Your task to perform on an android device: Open the map Image 0: 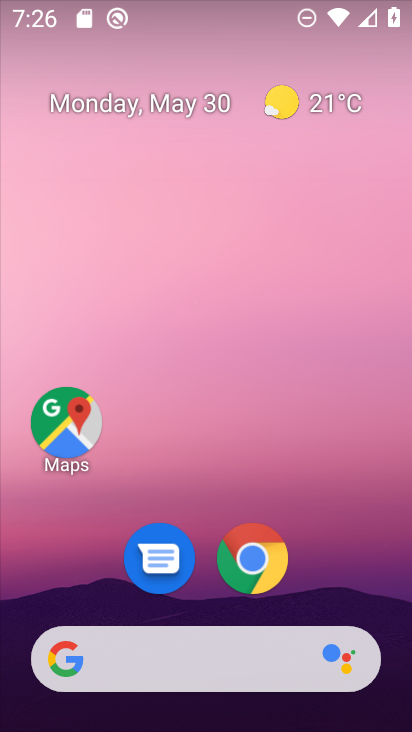
Step 0: click (62, 425)
Your task to perform on an android device: Open the map Image 1: 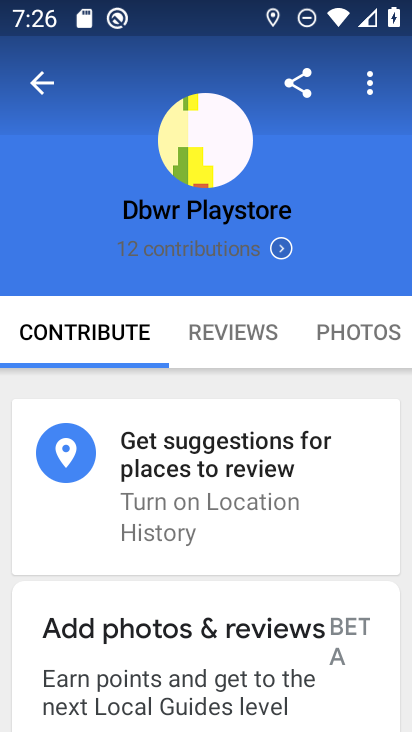
Step 1: click (42, 107)
Your task to perform on an android device: Open the map Image 2: 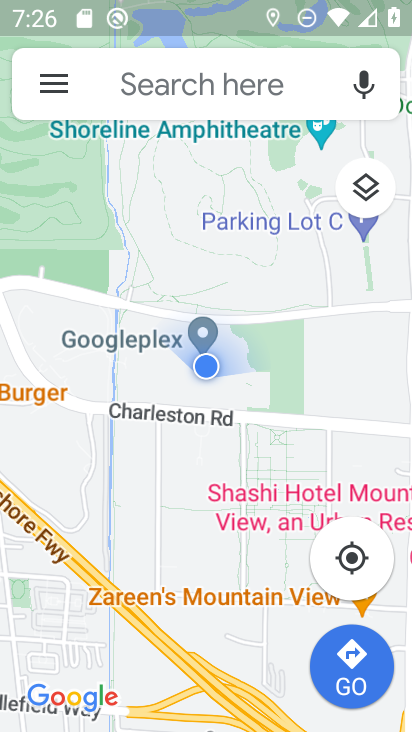
Step 2: task complete